Your task to perform on an android device: turn off wifi Image 0: 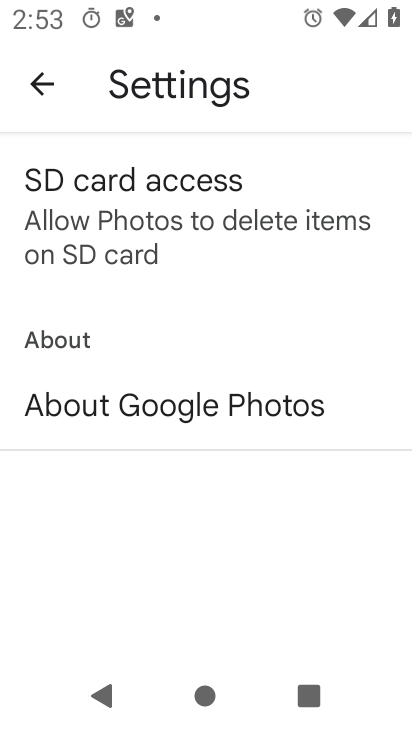
Step 0: press home button
Your task to perform on an android device: turn off wifi Image 1: 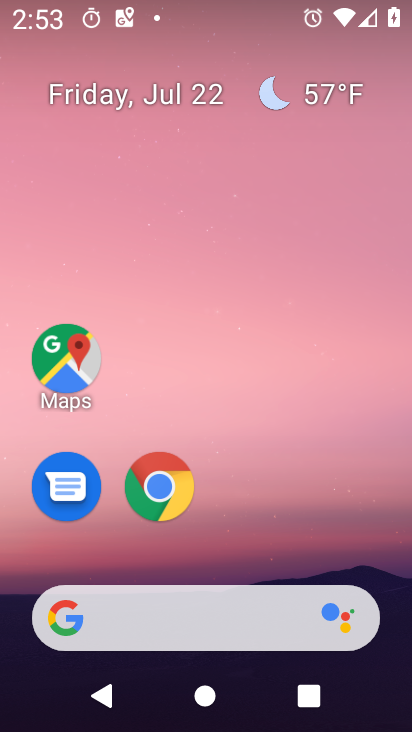
Step 1: drag from (362, 509) to (337, 113)
Your task to perform on an android device: turn off wifi Image 2: 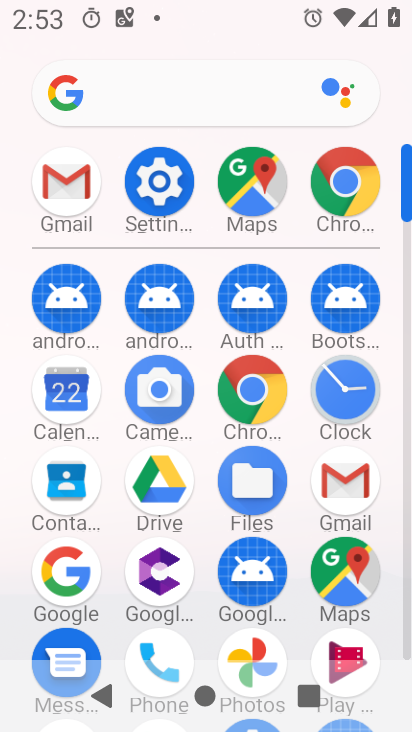
Step 2: click (171, 190)
Your task to perform on an android device: turn off wifi Image 3: 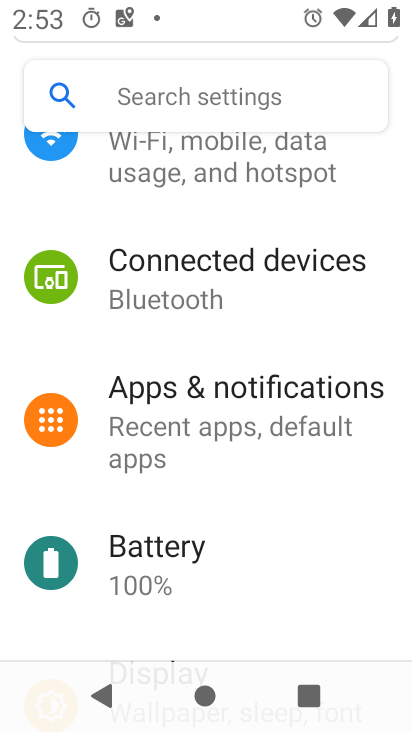
Step 3: drag from (360, 313) to (360, 410)
Your task to perform on an android device: turn off wifi Image 4: 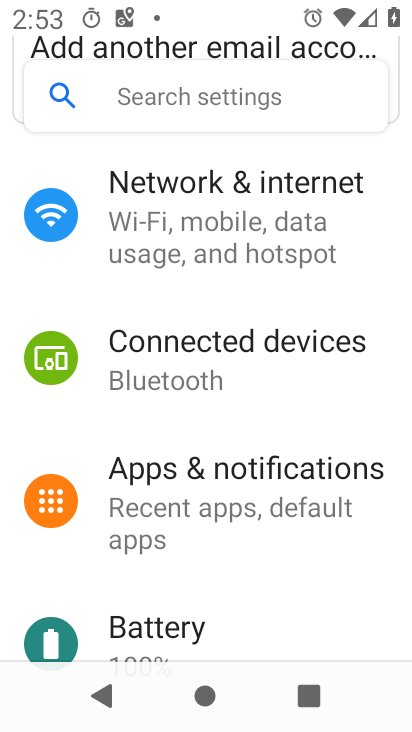
Step 4: drag from (364, 275) to (356, 543)
Your task to perform on an android device: turn off wifi Image 5: 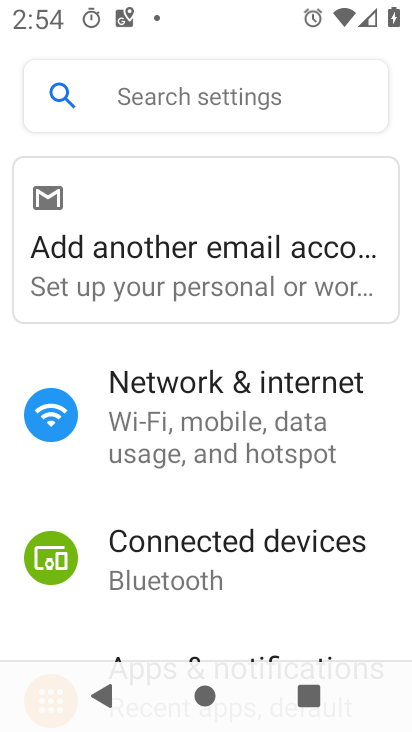
Step 5: click (330, 439)
Your task to perform on an android device: turn off wifi Image 6: 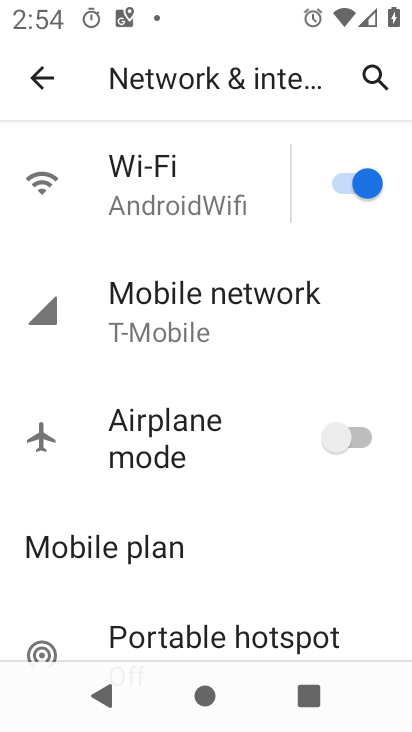
Step 6: click (375, 176)
Your task to perform on an android device: turn off wifi Image 7: 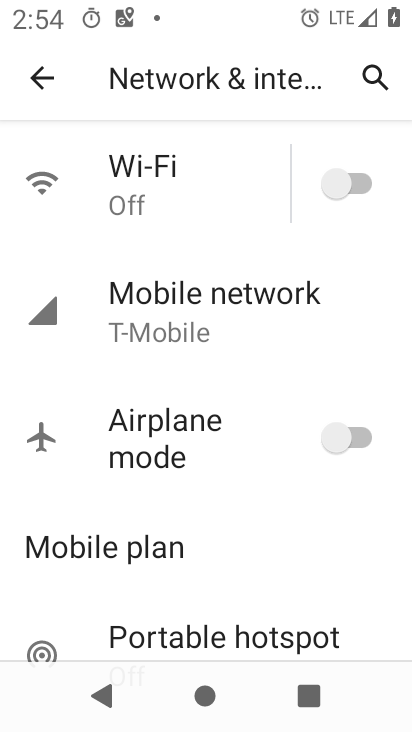
Step 7: task complete